Your task to perform on an android device: Go to location settings Image 0: 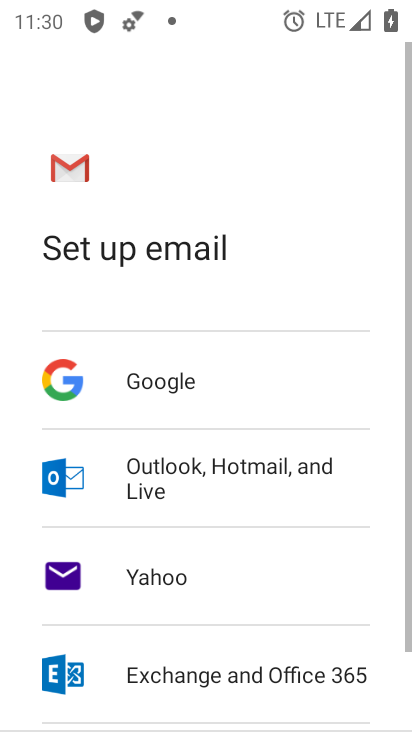
Step 0: press home button
Your task to perform on an android device: Go to location settings Image 1: 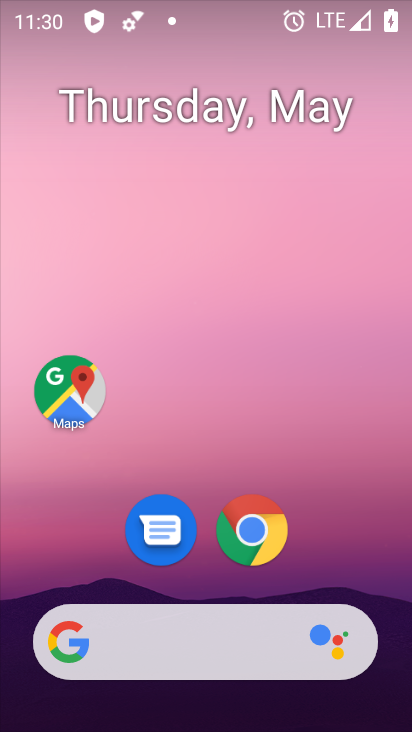
Step 1: drag from (189, 594) to (268, 33)
Your task to perform on an android device: Go to location settings Image 2: 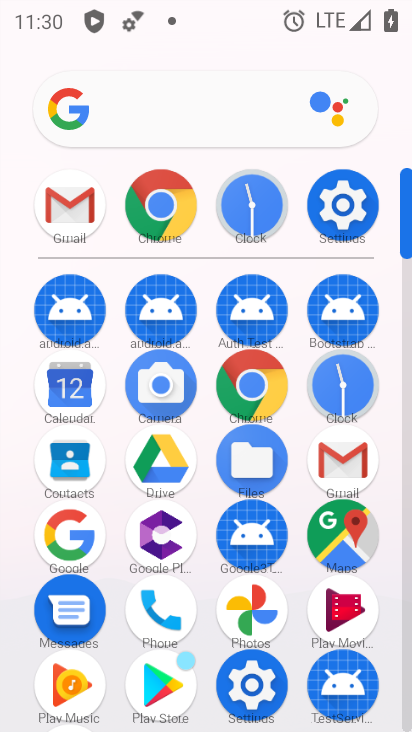
Step 2: click (348, 197)
Your task to perform on an android device: Go to location settings Image 3: 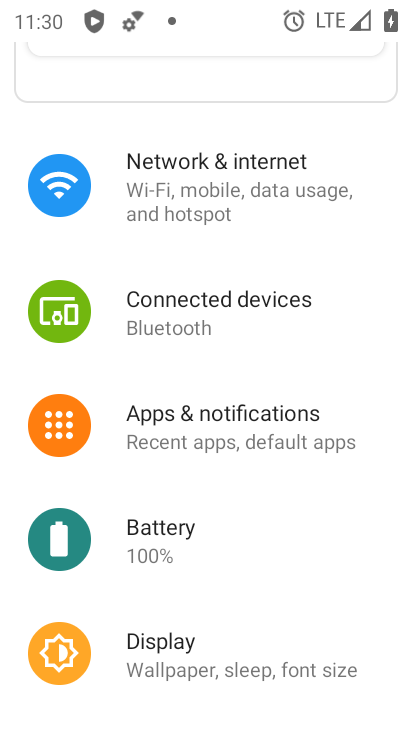
Step 3: drag from (235, 595) to (270, 279)
Your task to perform on an android device: Go to location settings Image 4: 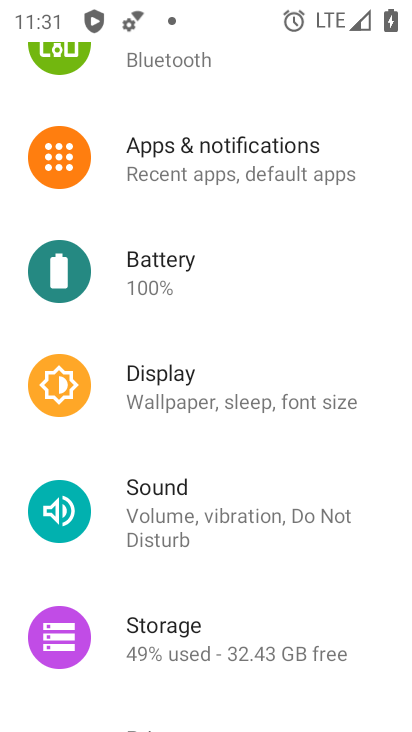
Step 4: drag from (231, 576) to (267, 317)
Your task to perform on an android device: Go to location settings Image 5: 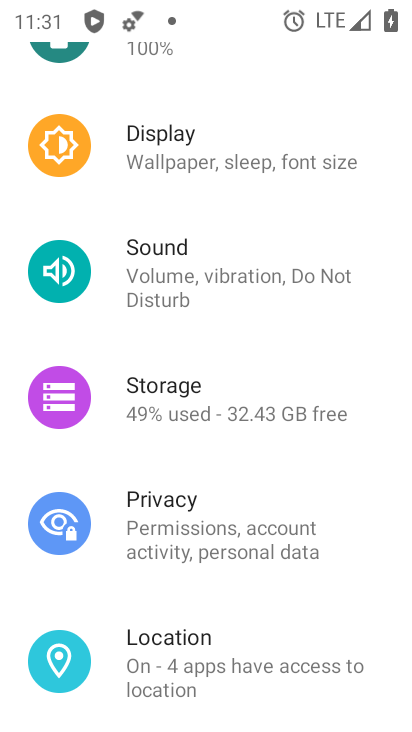
Step 5: click (194, 643)
Your task to perform on an android device: Go to location settings Image 6: 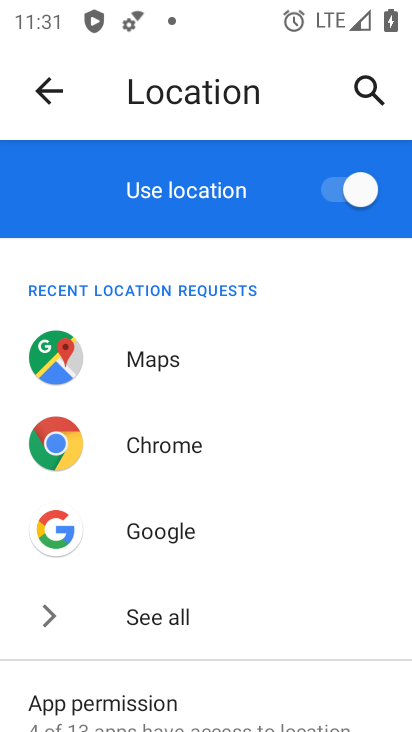
Step 6: task complete